Your task to perform on an android device: Search for the new Nike Air Jordan 33 on Nike.com Image 0: 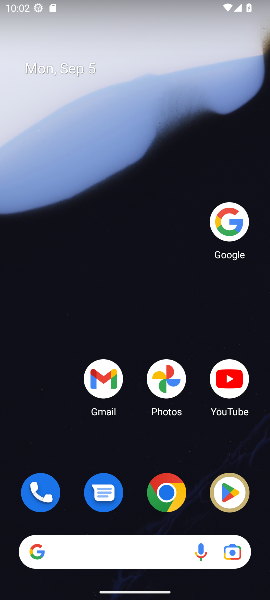
Step 0: click (238, 221)
Your task to perform on an android device: Search for the new Nike Air Jordan 33 on Nike.com Image 1: 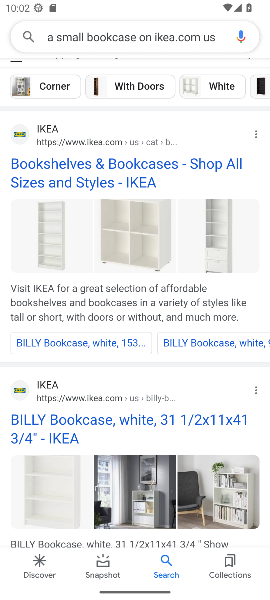
Step 1: click (191, 33)
Your task to perform on an android device: Search for the new Nike Air Jordan 33 on Nike.com Image 2: 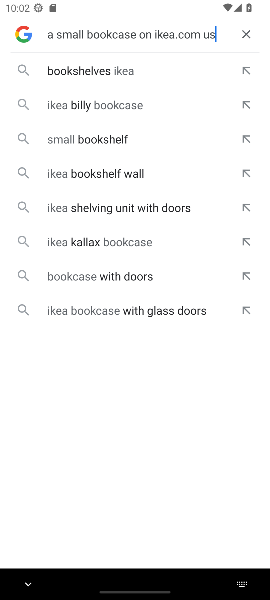
Step 2: click (246, 29)
Your task to perform on an android device: Search for the new Nike Air Jordan 33 on Nike.com Image 3: 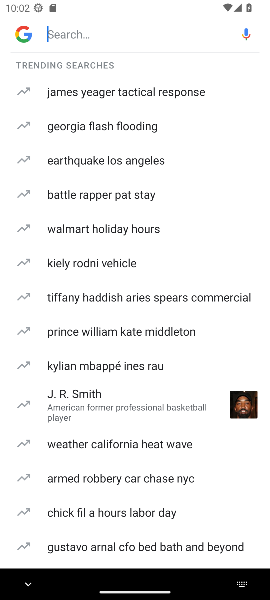
Step 3: click (118, 24)
Your task to perform on an android device: Search for the new Nike Air Jordan 33 on Nike.com Image 4: 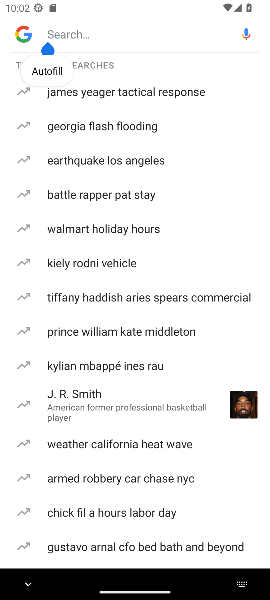
Step 4: type " the new Nike Air Jordan 33 on Nike.com "
Your task to perform on an android device: Search for the new Nike Air Jordan 33 on Nike.com Image 5: 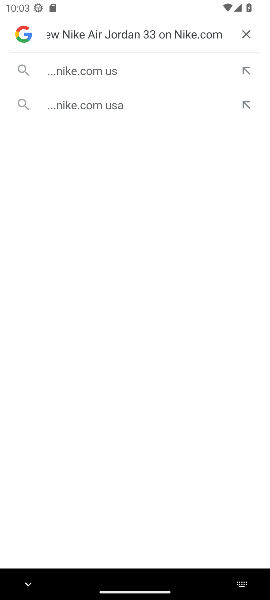
Step 5: click (92, 78)
Your task to perform on an android device: Search for the new Nike Air Jordan 33 on Nike.com Image 6: 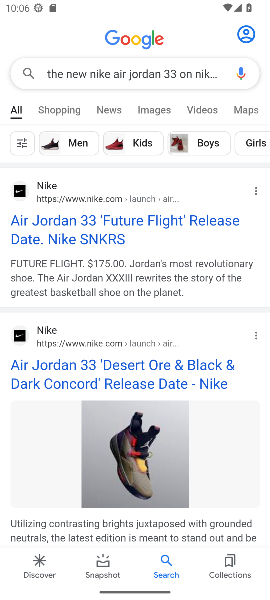
Step 6: task complete